Your task to perform on an android device: delete browsing data in the chrome app Image 0: 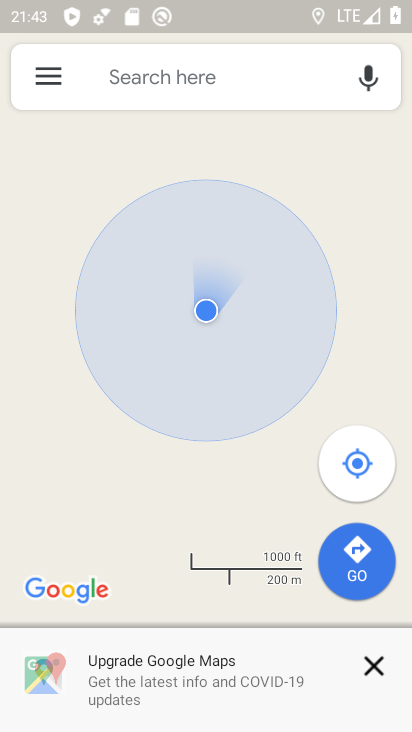
Step 0: press home button
Your task to perform on an android device: delete browsing data in the chrome app Image 1: 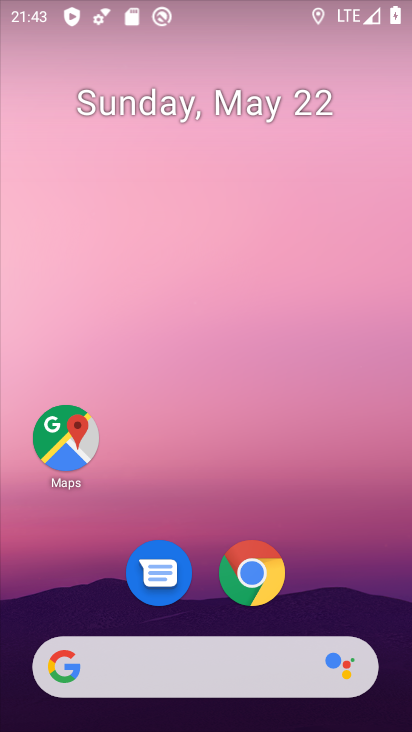
Step 1: click (243, 575)
Your task to perform on an android device: delete browsing data in the chrome app Image 2: 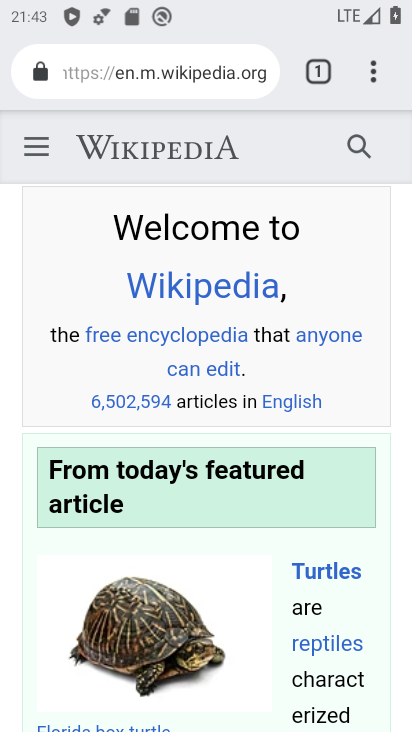
Step 2: drag from (373, 63) to (270, 7)
Your task to perform on an android device: delete browsing data in the chrome app Image 3: 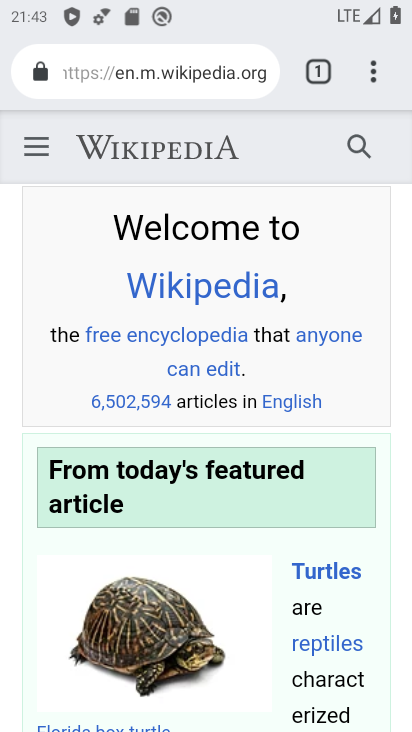
Step 3: drag from (369, 59) to (135, 560)
Your task to perform on an android device: delete browsing data in the chrome app Image 4: 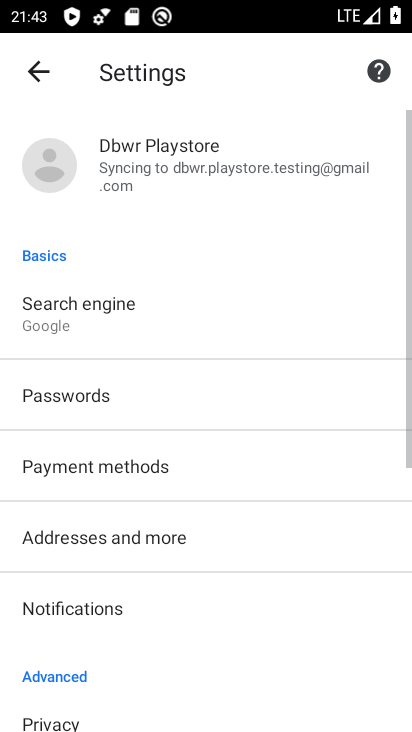
Step 4: drag from (130, 639) to (202, 371)
Your task to perform on an android device: delete browsing data in the chrome app Image 5: 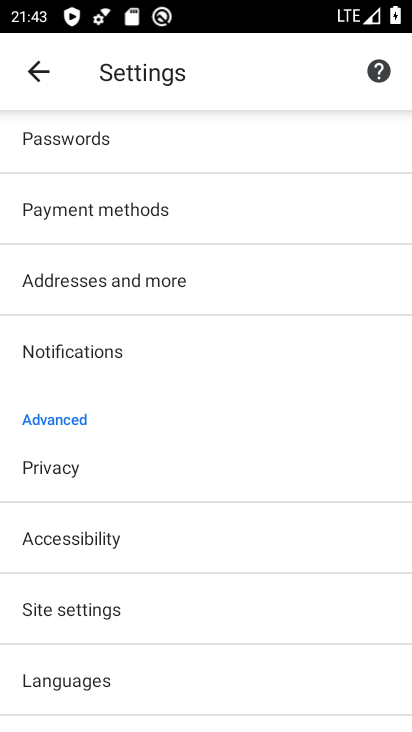
Step 5: click (78, 487)
Your task to perform on an android device: delete browsing data in the chrome app Image 6: 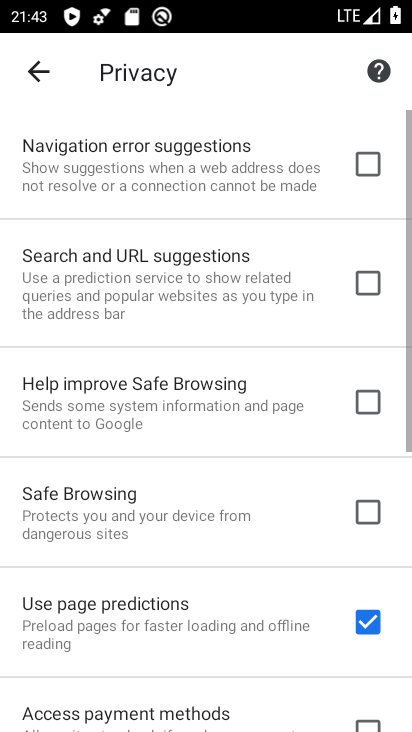
Step 6: drag from (162, 670) to (239, 64)
Your task to perform on an android device: delete browsing data in the chrome app Image 7: 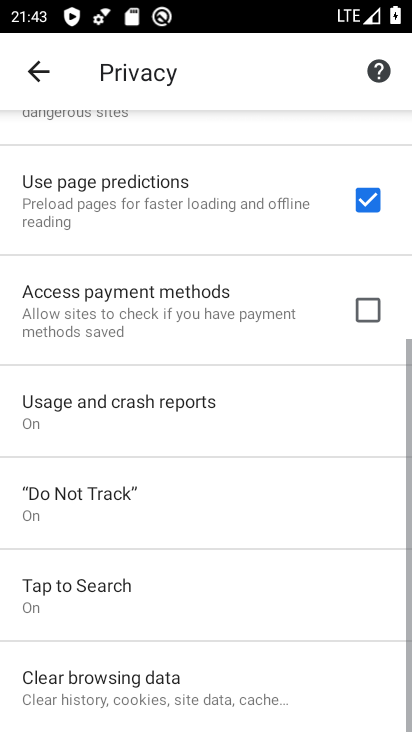
Step 7: drag from (226, 465) to (249, 16)
Your task to perform on an android device: delete browsing data in the chrome app Image 8: 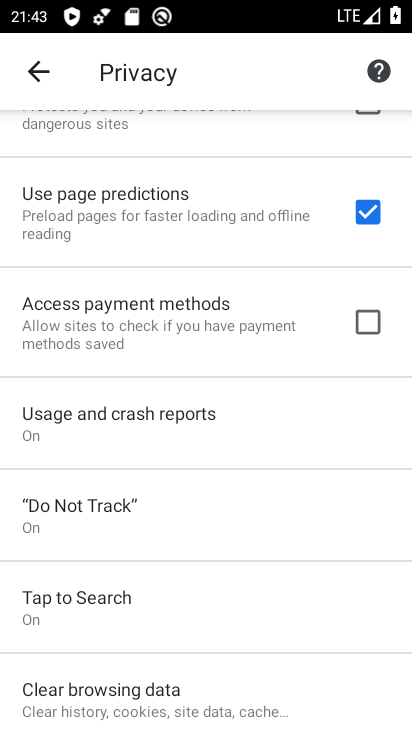
Step 8: click (136, 686)
Your task to perform on an android device: delete browsing data in the chrome app Image 9: 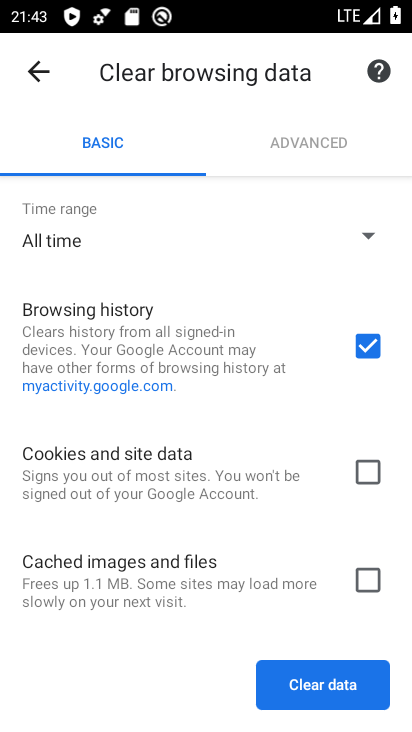
Step 9: click (292, 679)
Your task to perform on an android device: delete browsing data in the chrome app Image 10: 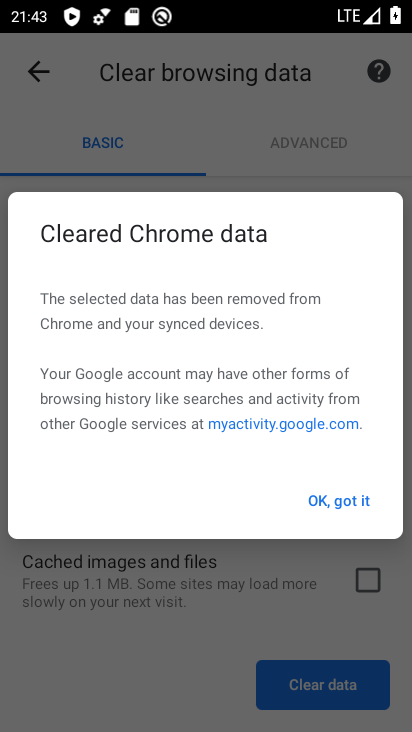
Step 10: click (355, 496)
Your task to perform on an android device: delete browsing data in the chrome app Image 11: 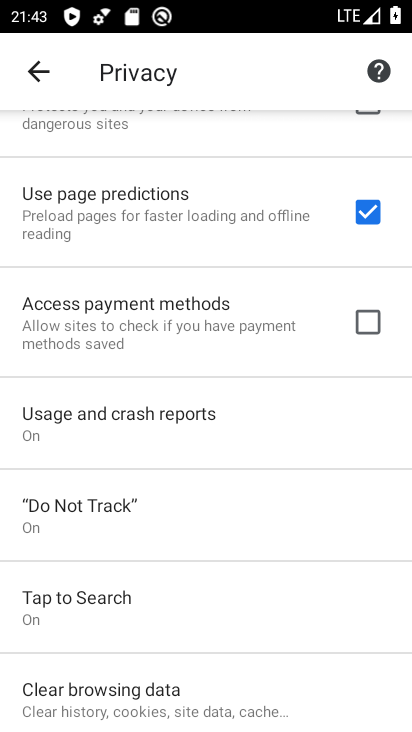
Step 11: task complete